Your task to perform on an android device: toggle wifi Image 0: 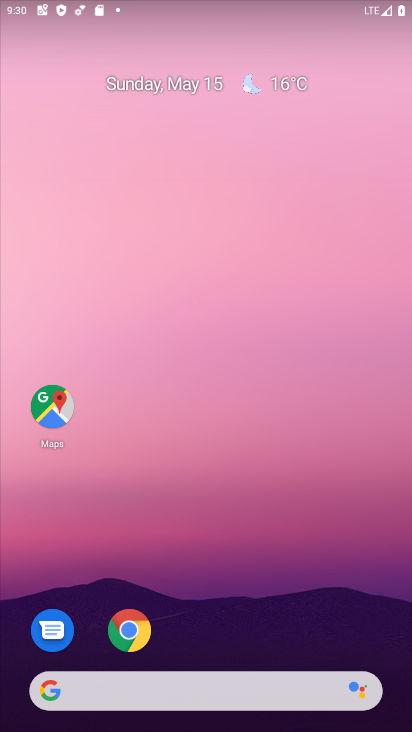
Step 0: drag from (211, 642) to (222, 167)
Your task to perform on an android device: toggle wifi Image 1: 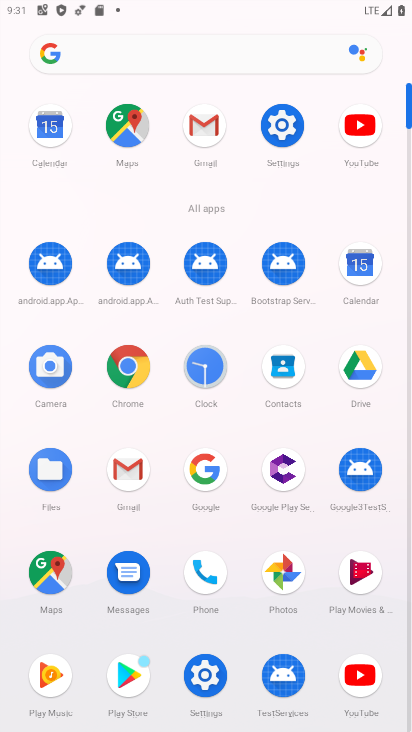
Step 1: click (294, 119)
Your task to perform on an android device: toggle wifi Image 2: 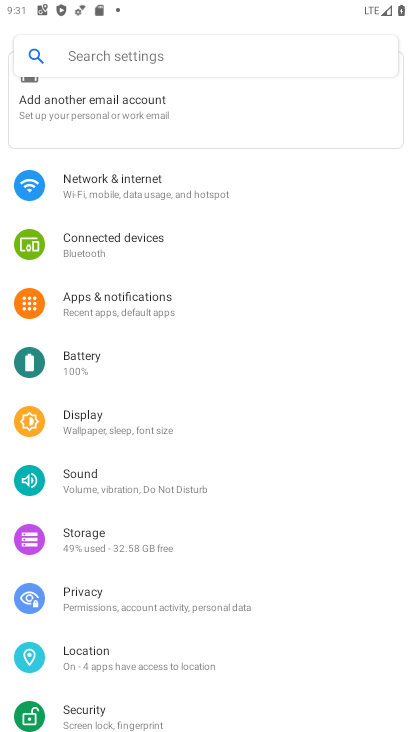
Step 2: click (157, 181)
Your task to perform on an android device: toggle wifi Image 3: 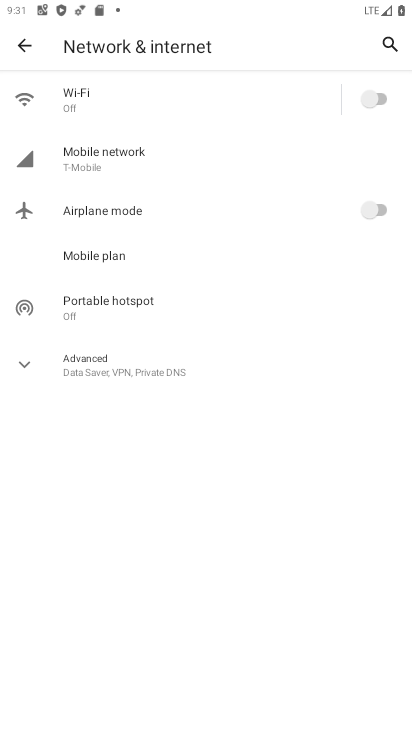
Step 3: click (375, 88)
Your task to perform on an android device: toggle wifi Image 4: 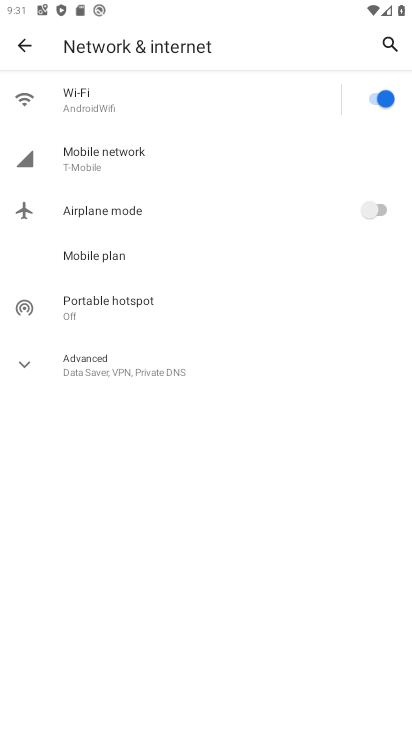
Step 4: task complete